Your task to perform on an android device: turn on location history Image 0: 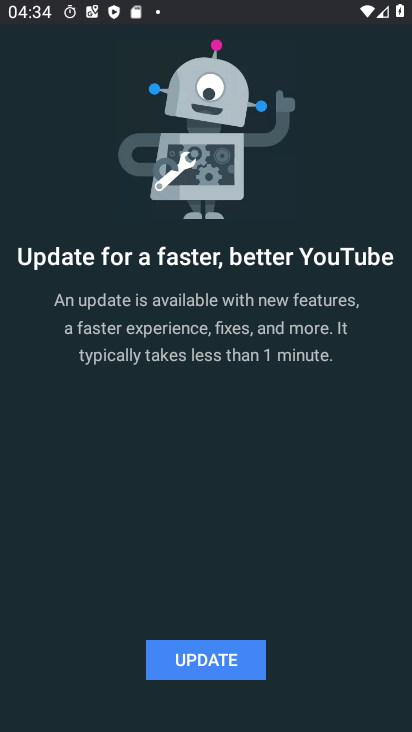
Step 0: press home button
Your task to perform on an android device: turn on location history Image 1: 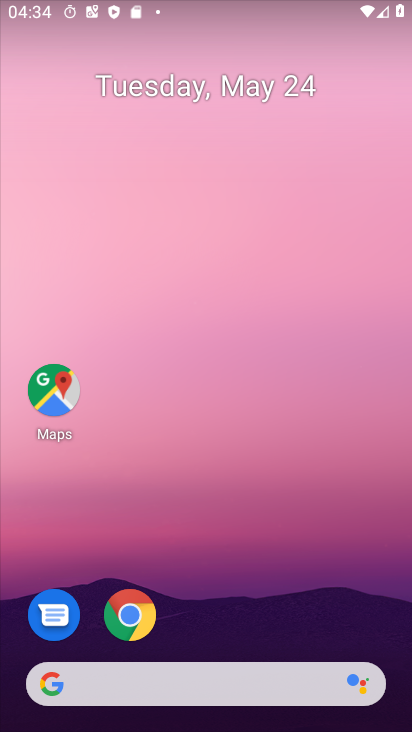
Step 1: drag from (234, 620) to (321, 14)
Your task to perform on an android device: turn on location history Image 2: 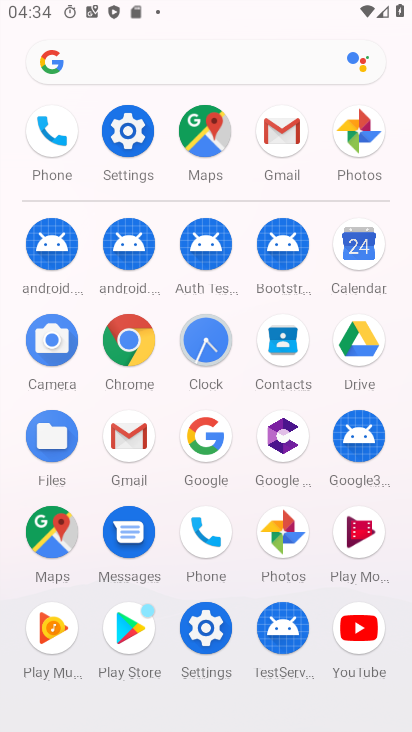
Step 2: click (115, 125)
Your task to perform on an android device: turn on location history Image 3: 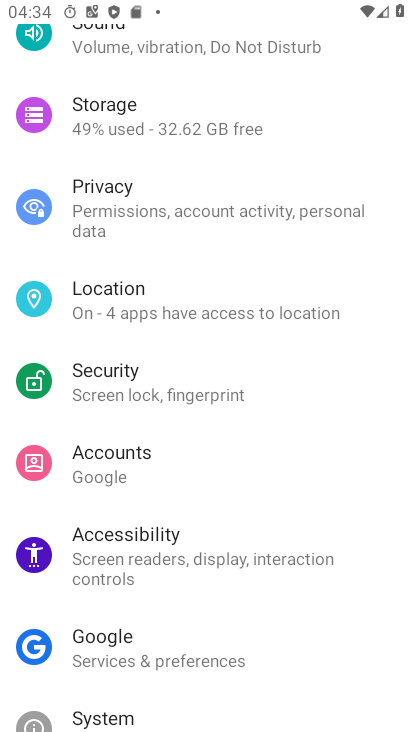
Step 3: click (100, 302)
Your task to perform on an android device: turn on location history Image 4: 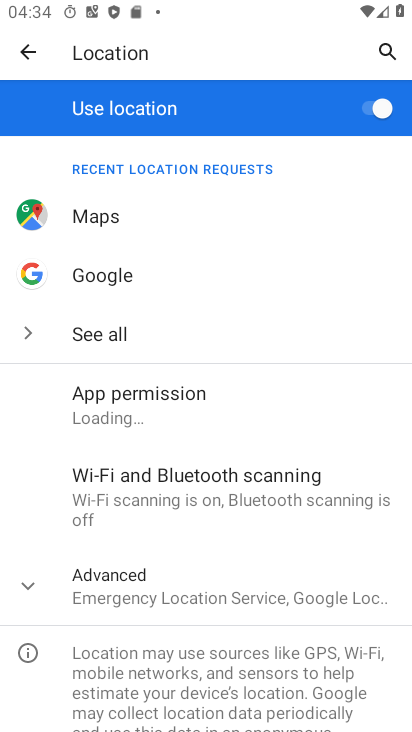
Step 4: click (139, 569)
Your task to perform on an android device: turn on location history Image 5: 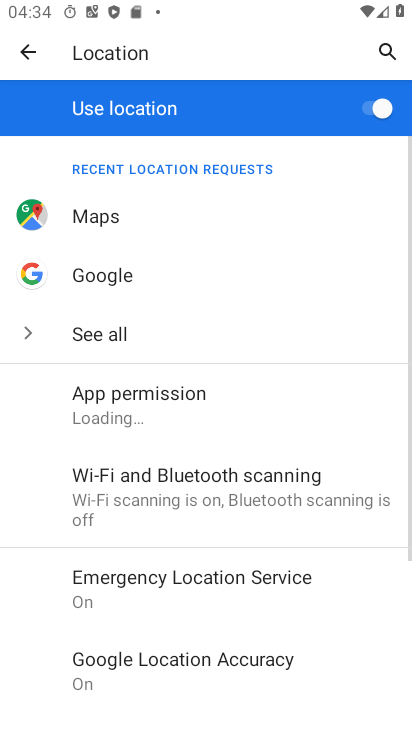
Step 5: drag from (145, 661) to (228, 299)
Your task to perform on an android device: turn on location history Image 6: 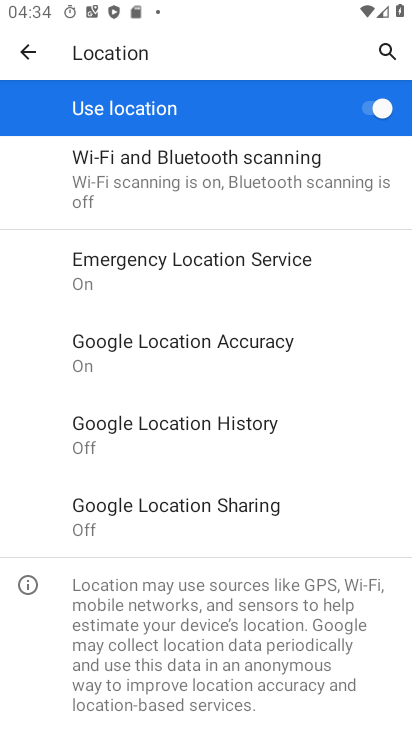
Step 6: click (178, 447)
Your task to perform on an android device: turn on location history Image 7: 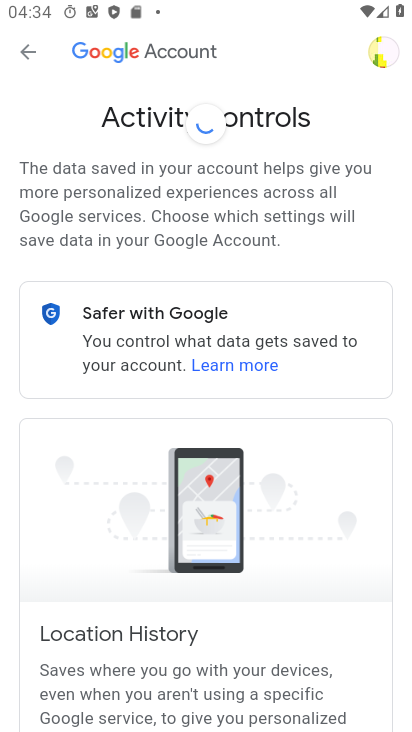
Step 7: task complete